Your task to perform on an android device: set the timer Image 0: 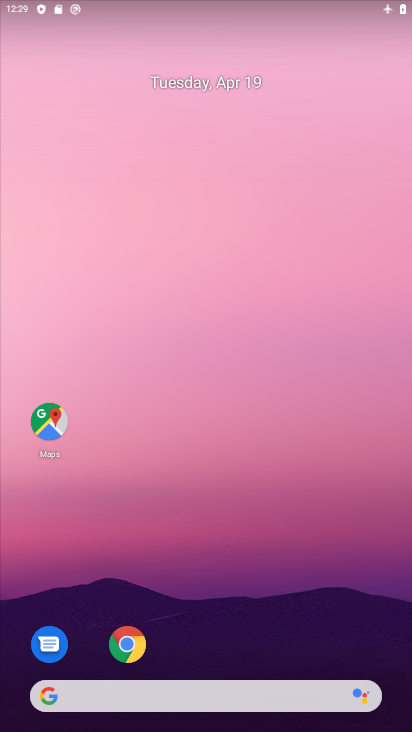
Step 0: drag from (343, 626) to (247, 63)
Your task to perform on an android device: set the timer Image 1: 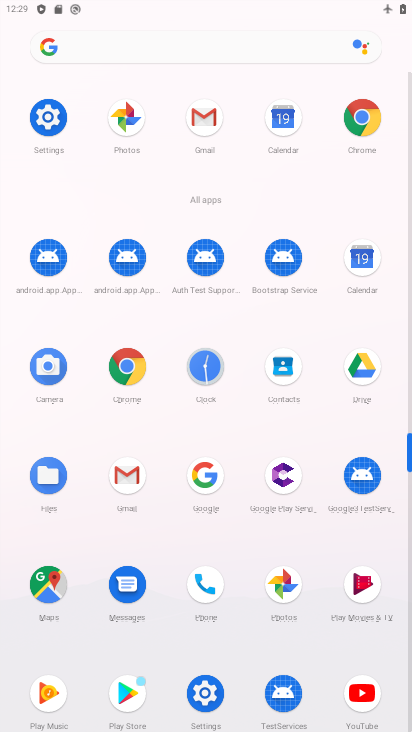
Step 1: click (64, 138)
Your task to perform on an android device: set the timer Image 2: 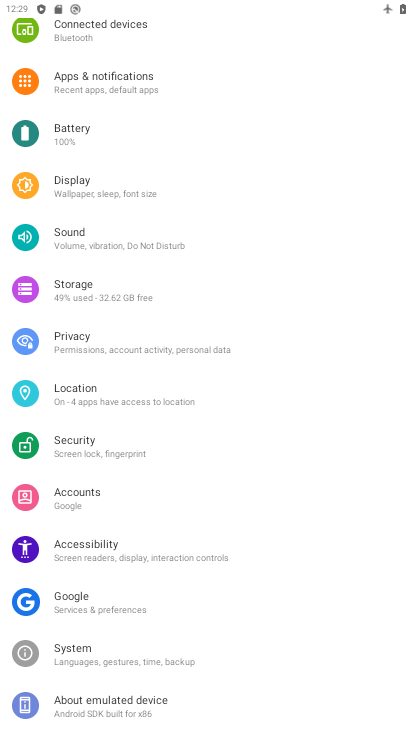
Step 2: press home button
Your task to perform on an android device: set the timer Image 3: 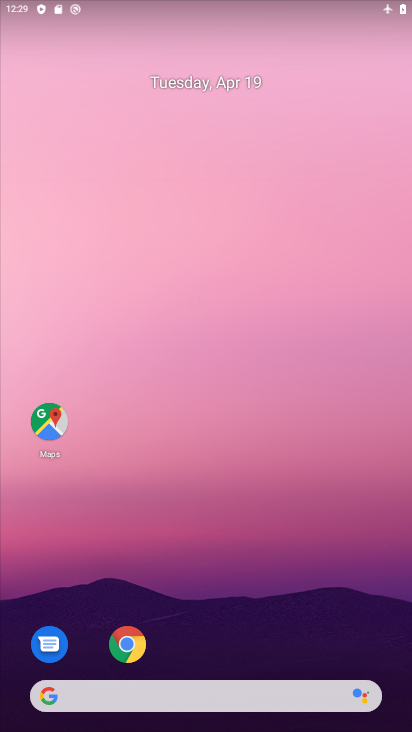
Step 3: drag from (258, 641) to (259, 4)
Your task to perform on an android device: set the timer Image 4: 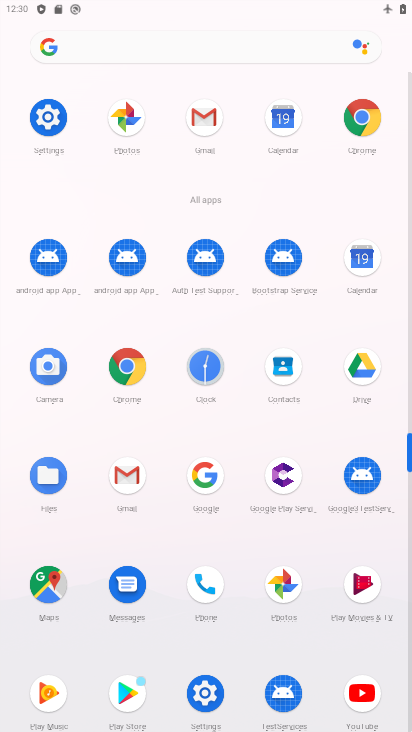
Step 4: click (202, 363)
Your task to perform on an android device: set the timer Image 5: 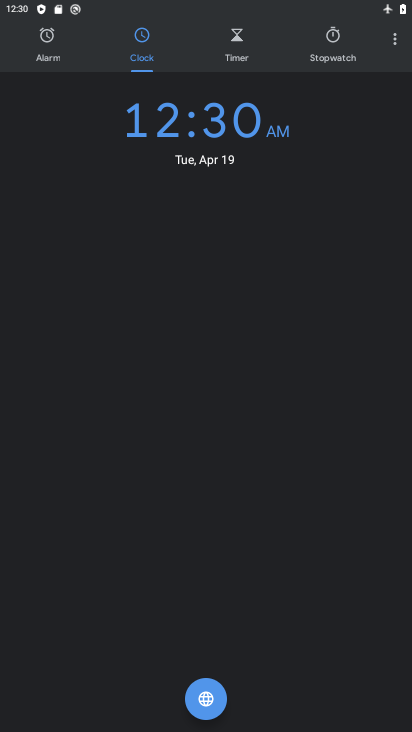
Step 5: click (241, 38)
Your task to perform on an android device: set the timer Image 6: 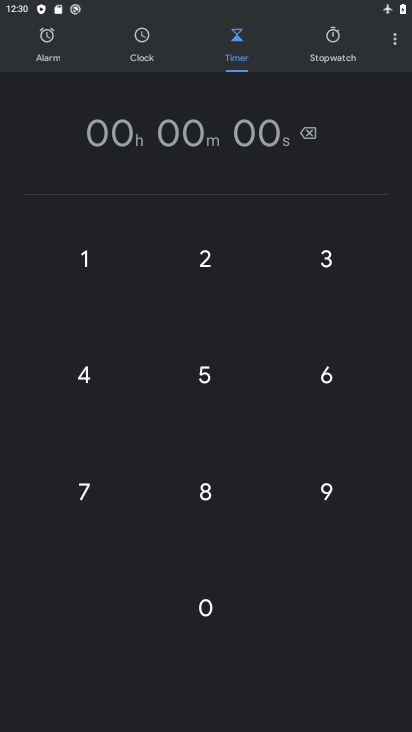
Step 6: task complete